Your task to perform on an android device: Search for Italian restaurants on Maps Image 0: 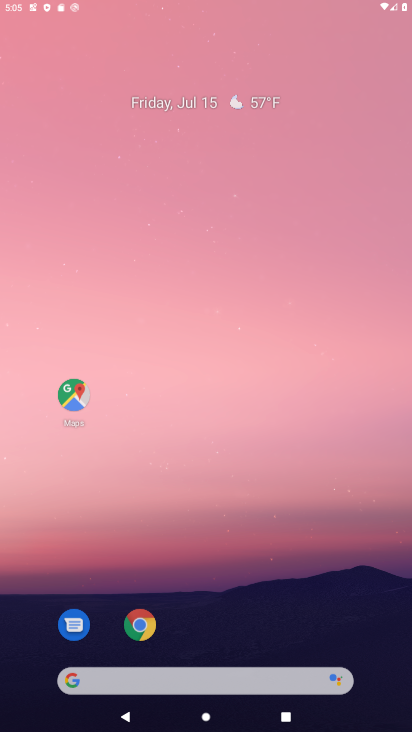
Step 0: press home button
Your task to perform on an android device: Search for Italian restaurants on Maps Image 1: 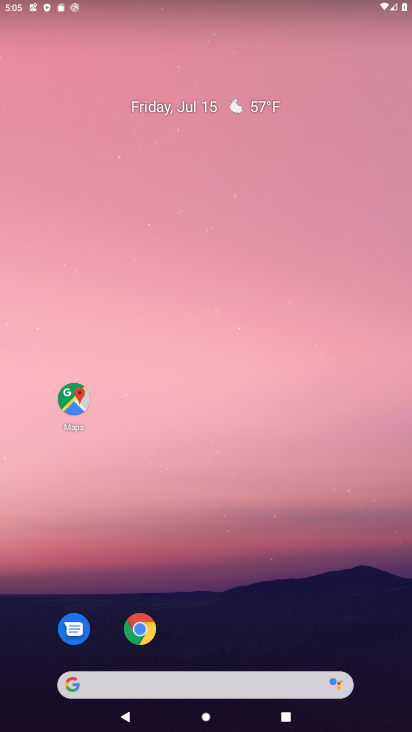
Step 1: click (68, 408)
Your task to perform on an android device: Search for Italian restaurants on Maps Image 2: 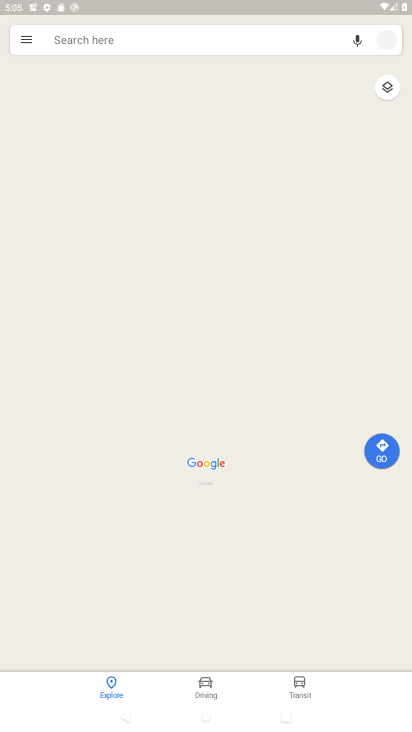
Step 2: click (221, 43)
Your task to perform on an android device: Search for Italian restaurants on Maps Image 3: 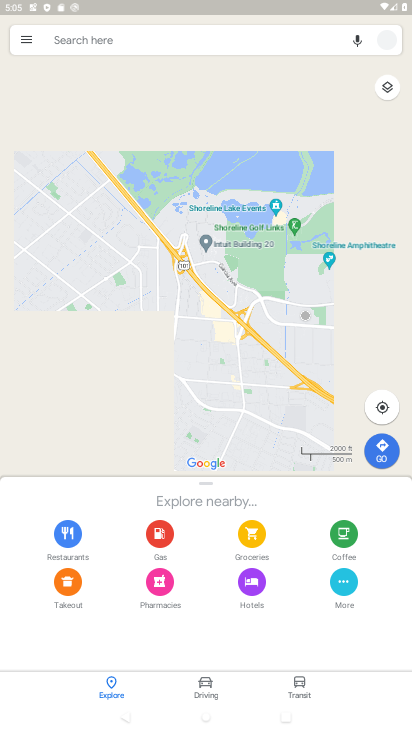
Step 3: type "Italian restaurants "
Your task to perform on an android device: Search for Italian restaurants on Maps Image 4: 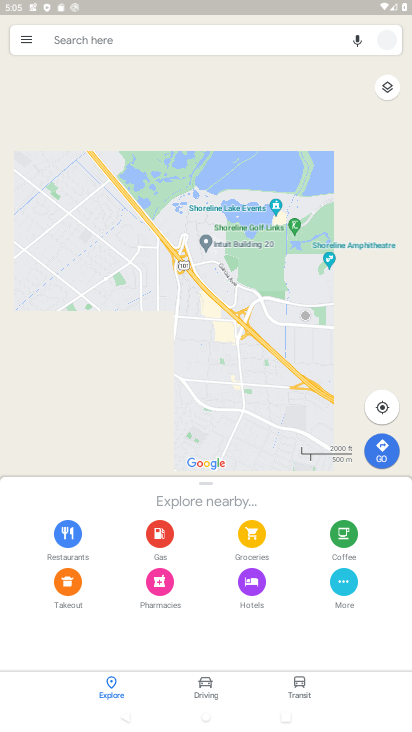
Step 4: click (71, 32)
Your task to perform on an android device: Search for Italian restaurants on Maps Image 5: 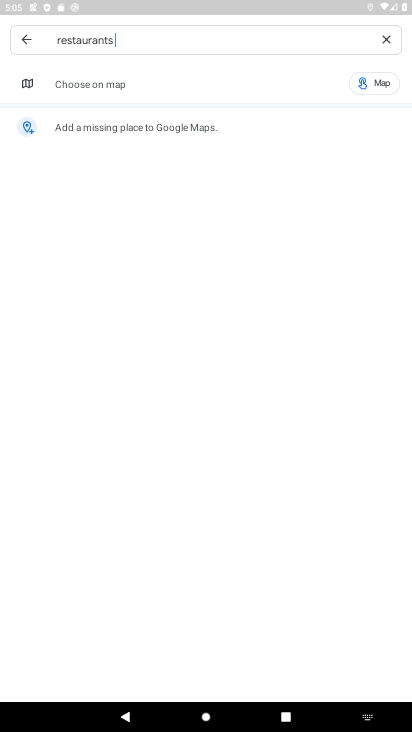
Step 5: click (87, 34)
Your task to perform on an android device: Search for Italian restaurants on Maps Image 6: 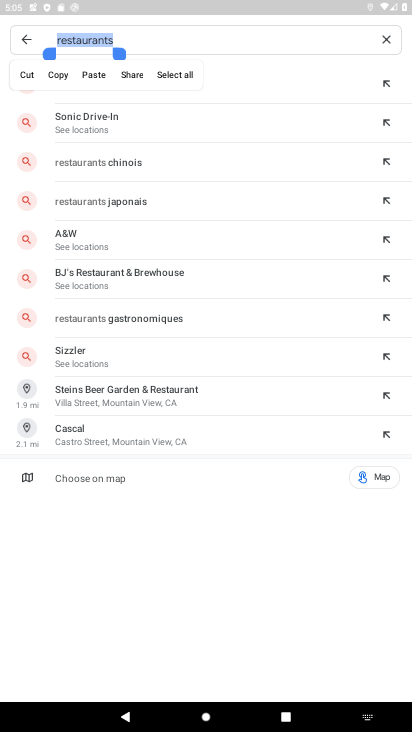
Step 6: type "Italian restaurants "
Your task to perform on an android device: Search for Italian restaurants on Maps Image 7: 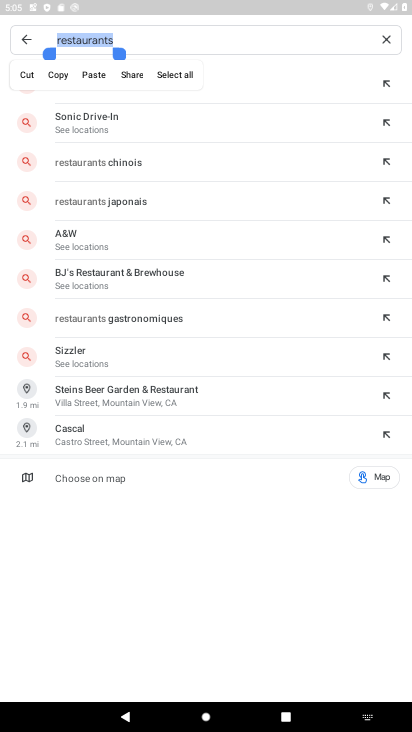
Step 7: click (389, 36)
Your task to perform on an android device: Search for Italian restaurants on Maps Image 8: 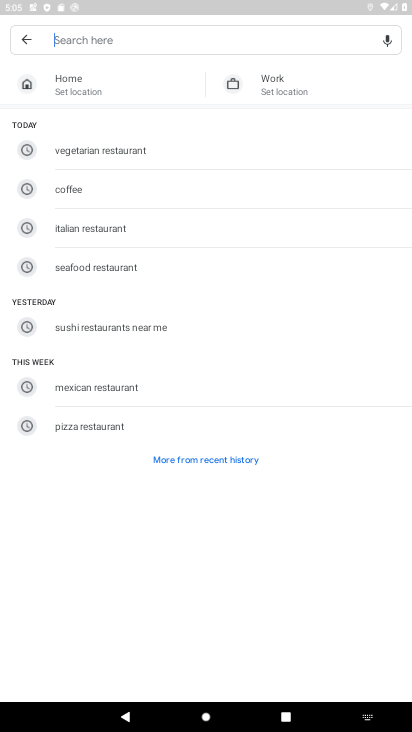
Step 8: click (114, 227)
Your task to perform on an android device: Search for Italian restaurants on Maps Image 9: 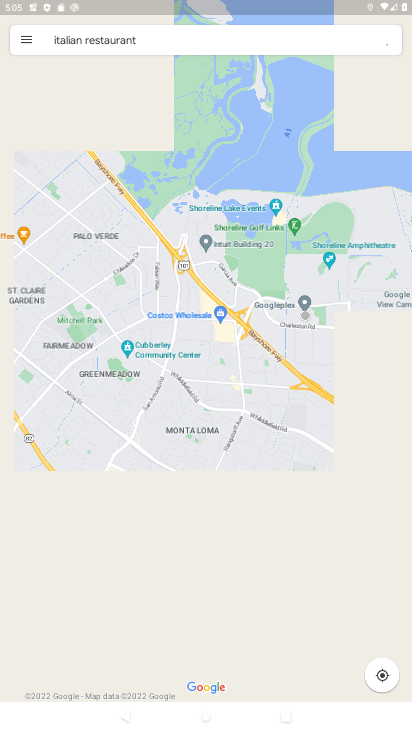
Step 9: task complete